Your task to perform on an android device: Go to location settings Image 0: 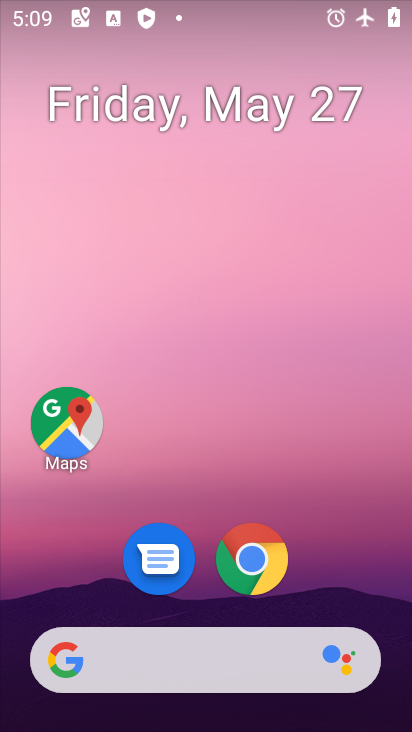
Step 0: drag from (311, 652) to (327, 33)
Your task to perform on an android device: Go to location settings Image 1: 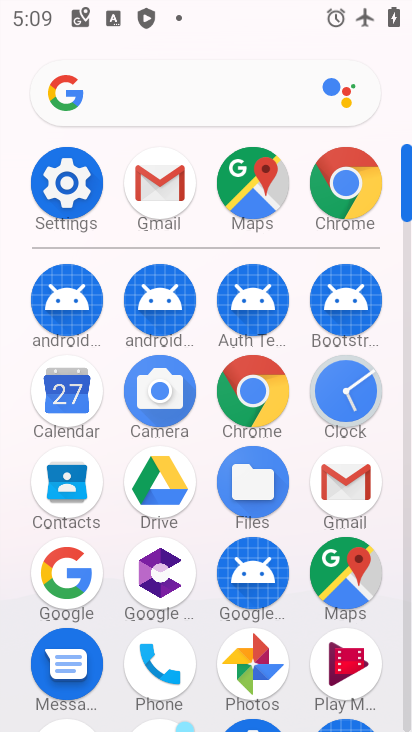
Step 1: click (66, 175)
Your task to perform on an android device: Go to location settings Image 2: 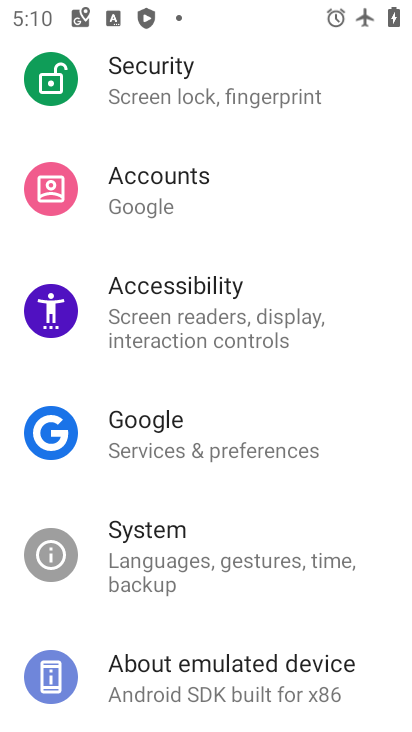
Step 2: drag from (113, 188) to (226, 609)
Your task to perform on an android device: Go to location settings Image 3: 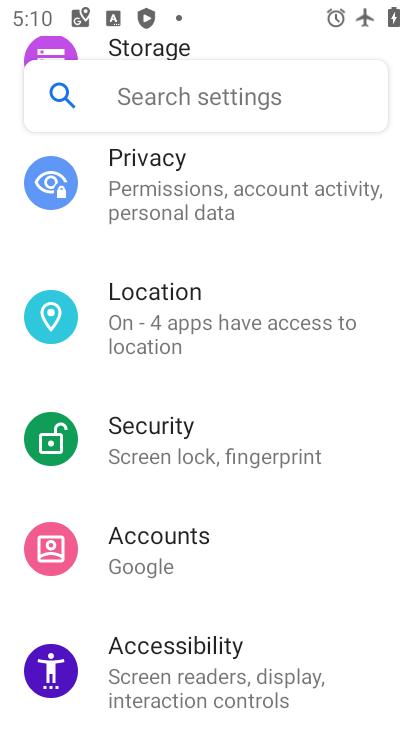
Step 3: click (205, 337)
Your task to perform on an android device: Go to location settings Image 4: 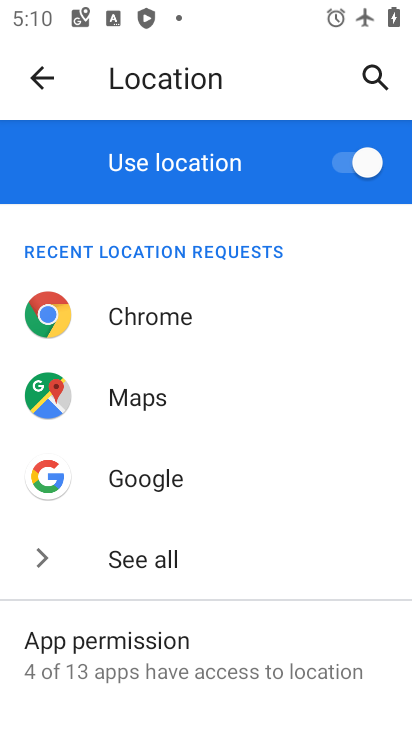
Step 4: task complete